Your task to perform on an android device: move a message to another label in the gmail app Image 0: 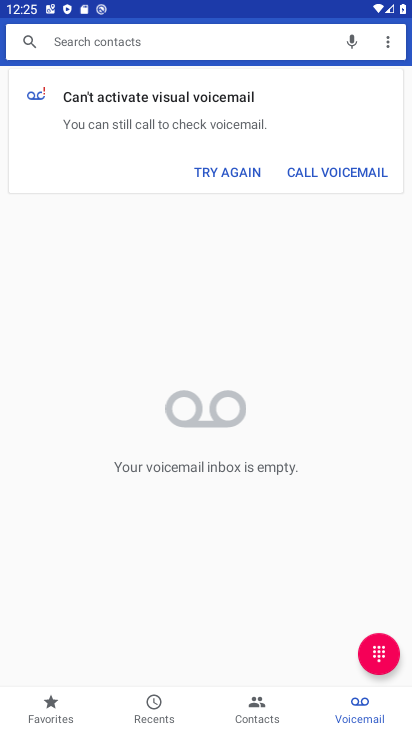
Step 0: press home button
Your task to perform on an android device: move a message to another label in the gmail app Image 1: 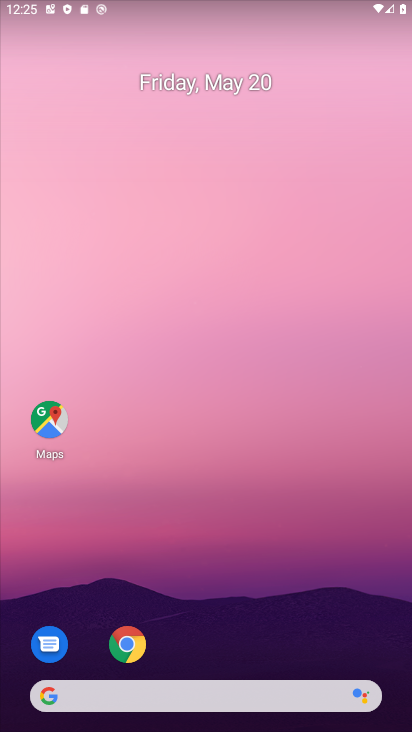
Step 1: drag from (324, 658) to (267, 28)
Your task to perform on an android device: move a message to another label in the gmail app Image 2: 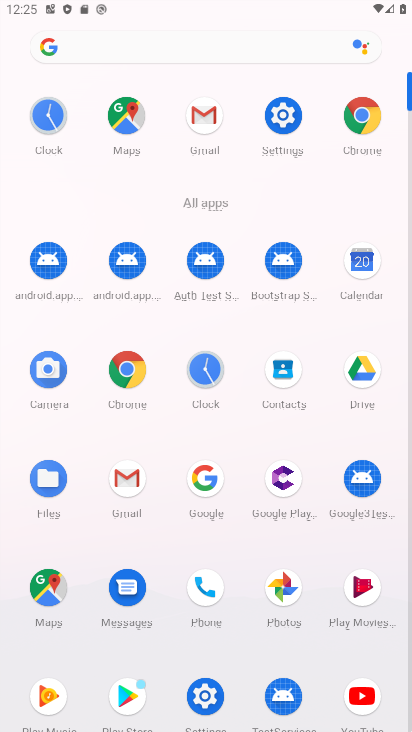
Step 2: click (204, 126)
Your task to perform on an android device: move a message to another label in the gmail app Image 3: 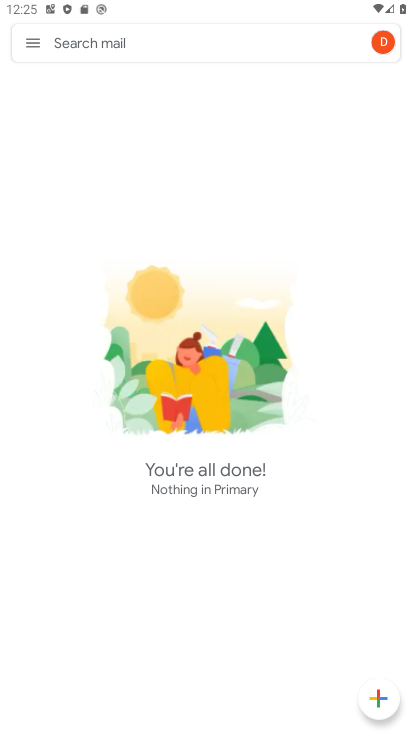
Step 3: click (30, 45)
Your task to perform on an android device: move a message to another label in the gmail app Image 4: 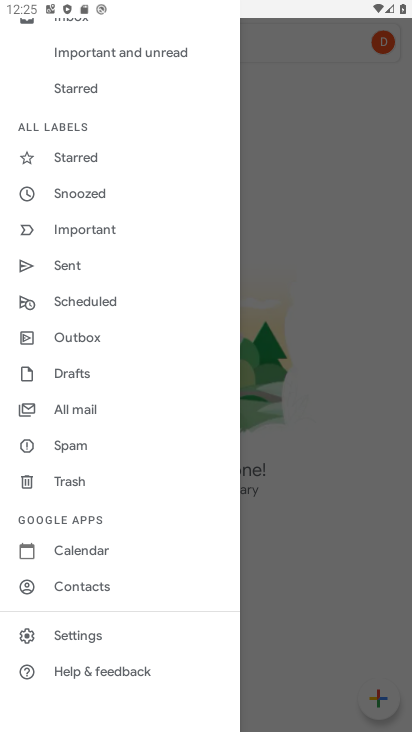
Step 4: click (70, 406)
Your task to perform on an android device: move a message to another label in the gmail app Image 5: 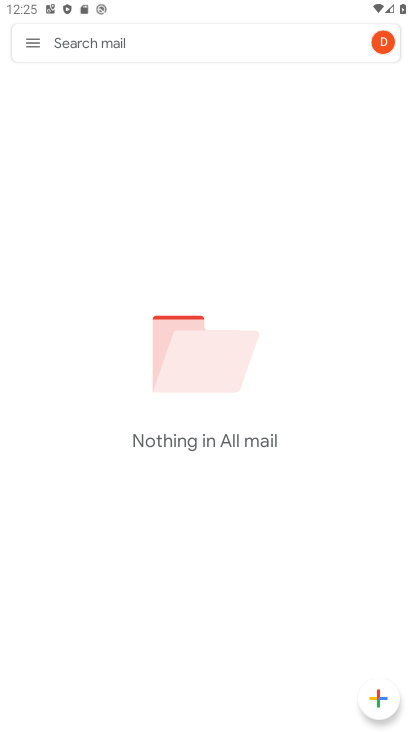
Step 5: task complete